Your task to perform on an android device: turn off sleep mode Image 0: 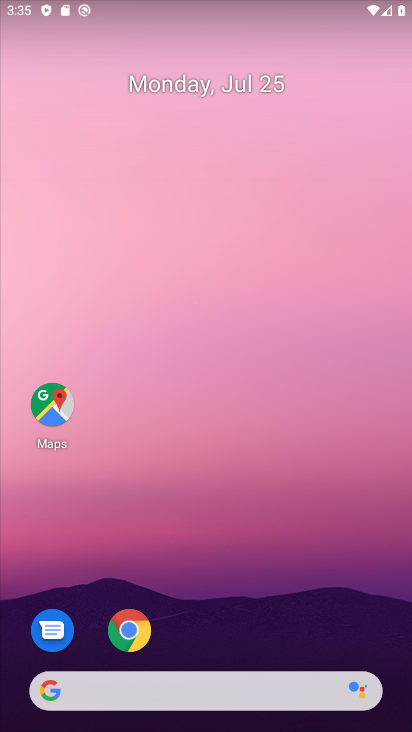
Step 0: drag from (276, 618) to (125, 204)
Your task to perform on an android device: turn off sleep mode Image 1: 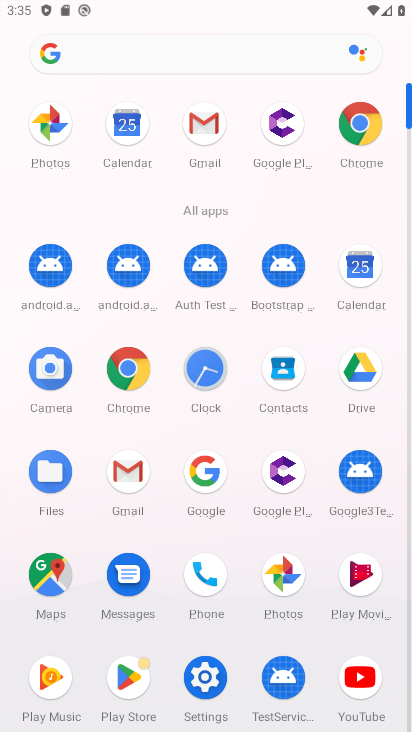
Step 1: click (193, 675)
Your task to perform on an android device: turn off sleep mode Image 2: 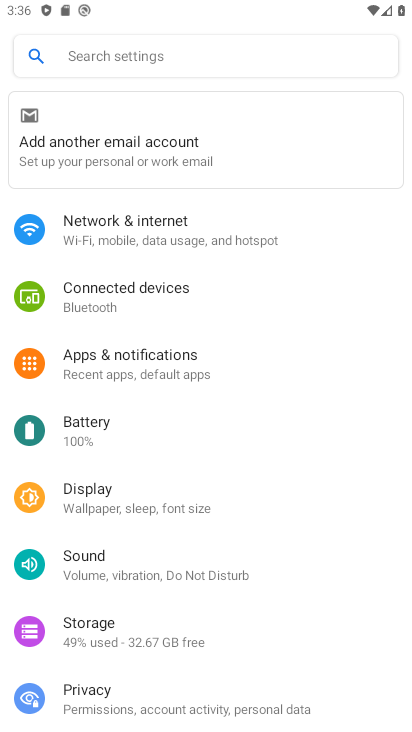
Step 2: click (147, 495)
Your task to perform on an android device: turn off sleep mode Image 3: 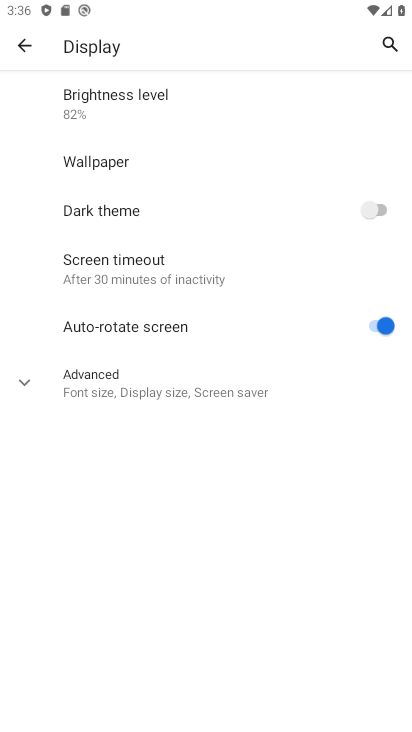
Step 3: click (213, 390)
Your task to perform on an android device: turn off sleep mode Image 4: 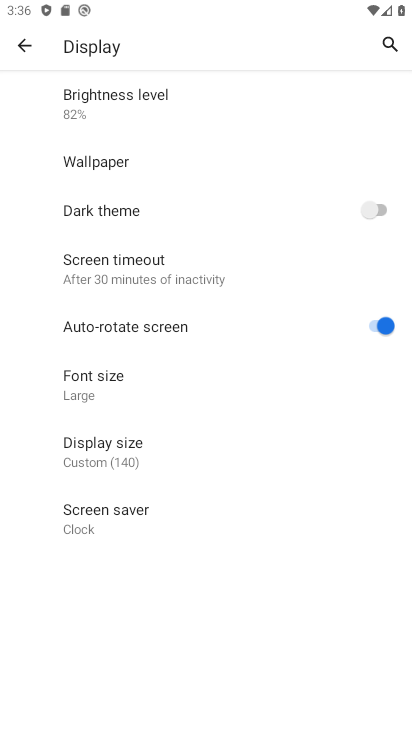
Step 4: task complete